Your task to perform on an android device: open sync settings in chrome Image 0: 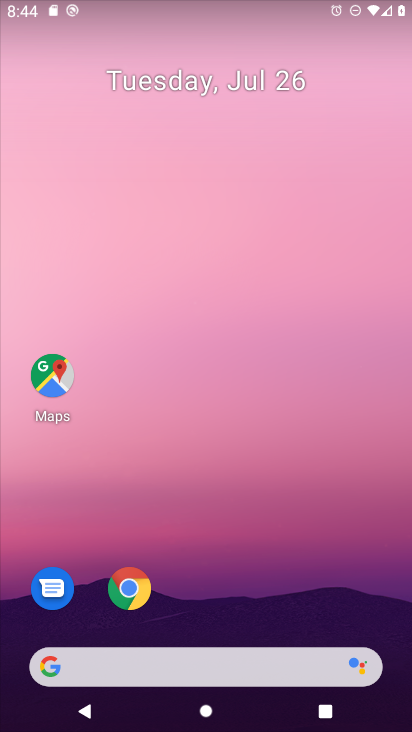
Step 0: drag from (209, 692) to (275, 155)
Your task to perform on an android device: open sync settings in chrome Image 1: 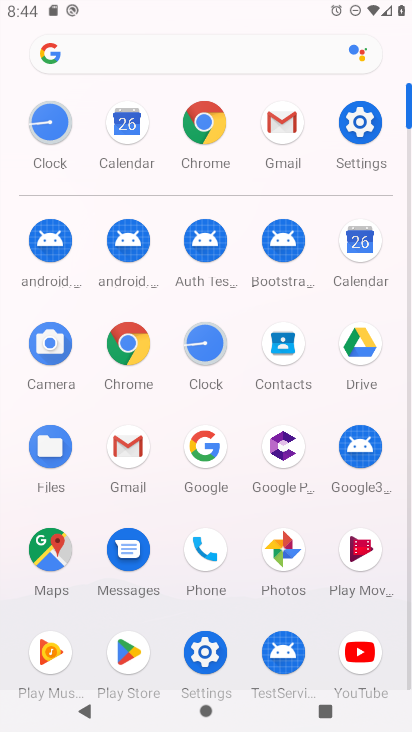
Step 1: click (208, 143)
Your task to perform on an android device: open sync settings in chrome Image 2: 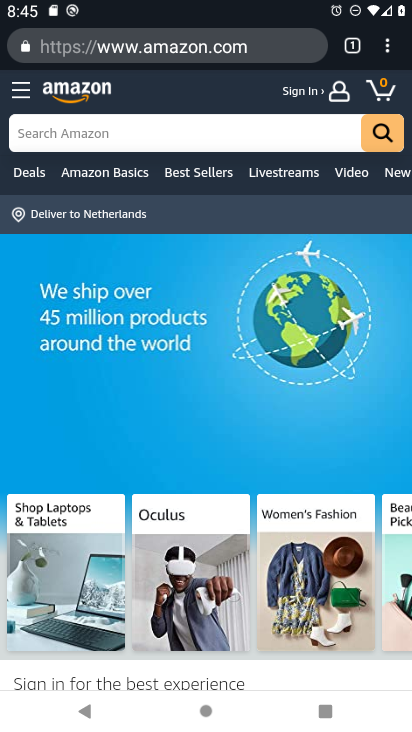
Step 2: click (388, 47)
Your task to perform on an android device: open sync settings in chrome Image 3: 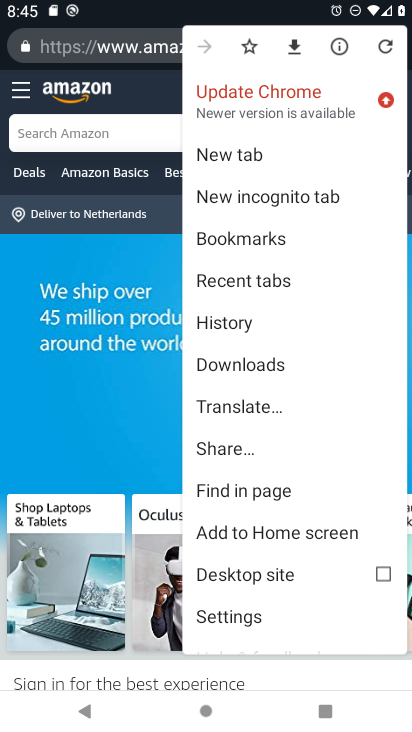
Step 3: click (225, 624)
Your task to perform on an android device: open sync settings in chrome Image 4: 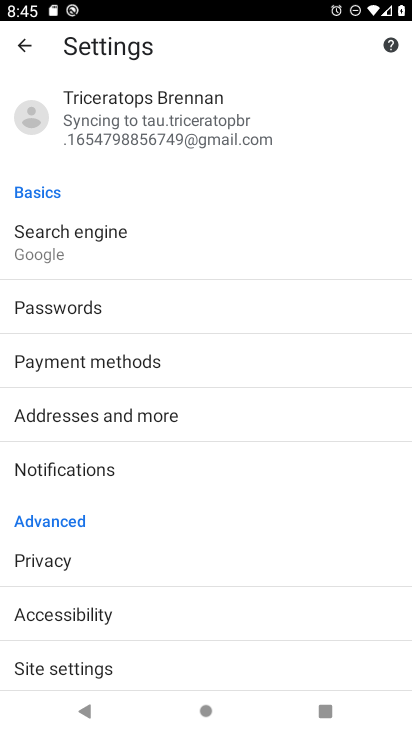
Step 4: click (274, 137)
Your task to perform on an android device: open sync settings in chrome Image 5: 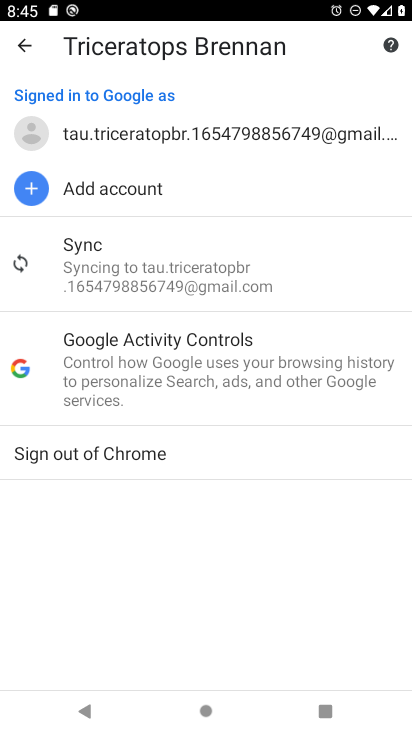
Step 5: click (161, 272)
Your task to perform on an android device: open sync settings in chrome Image 6: 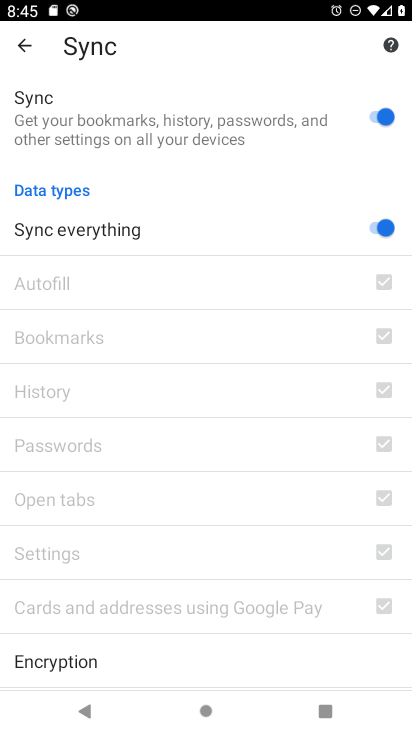
Step 6: task complete